Your task to perform on an android device: Go to settings Image 0: 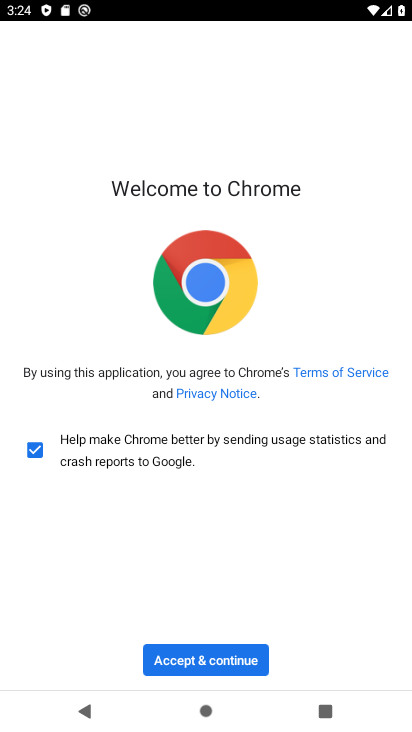
Step 0: click (242, 653)
Your task to perform on an android device: Go to settings Image 1: 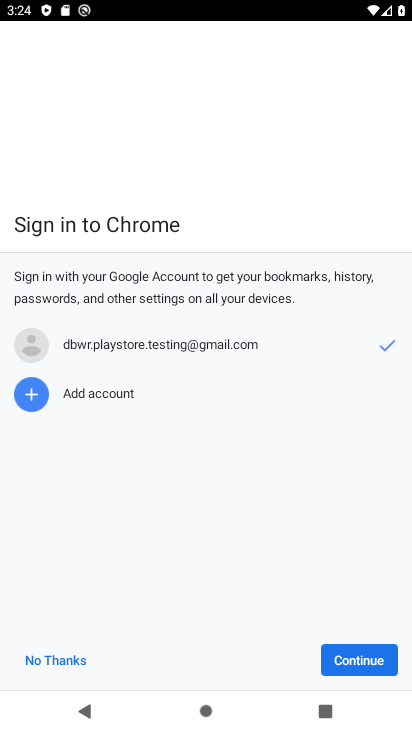
Step 1: click (351, 652)
Your task to perform on an android device: Go to settings Image 2: 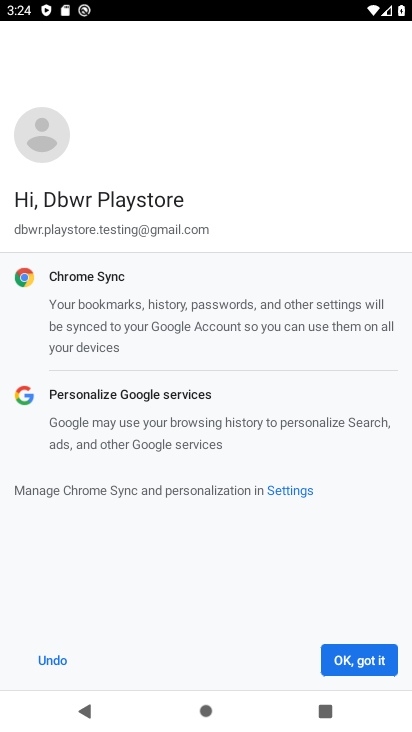
Step 2: click (350, 665)
Your task to perform on an android device: Go to settings Image 3: 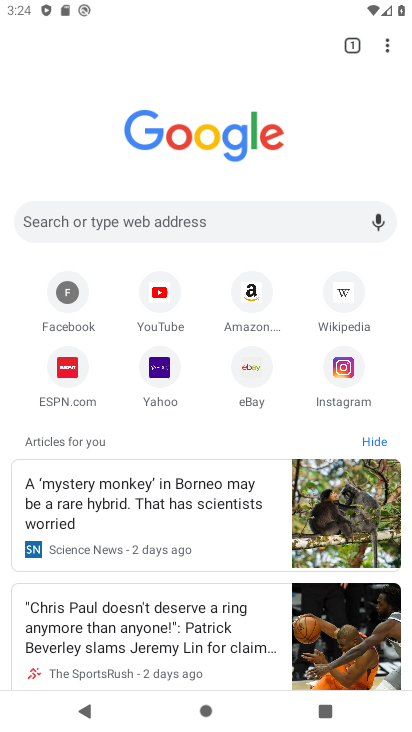
Step 3: click (383, 43)
Your task to perform on an android device: Go to settings Image 4: 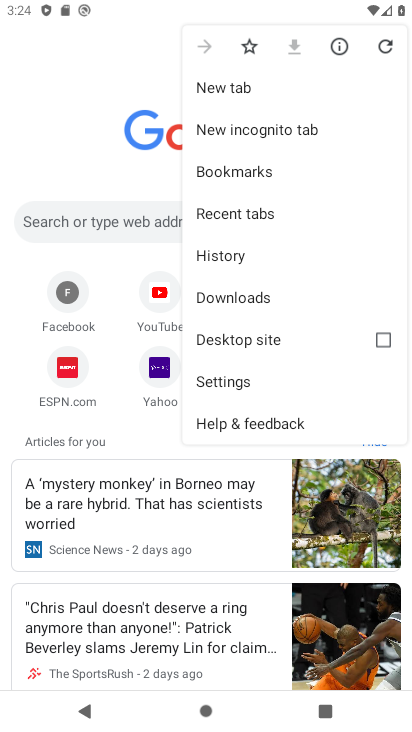
Step 4: click (232, 387)
Your task to perform on an android device: Go to settings Image 5: 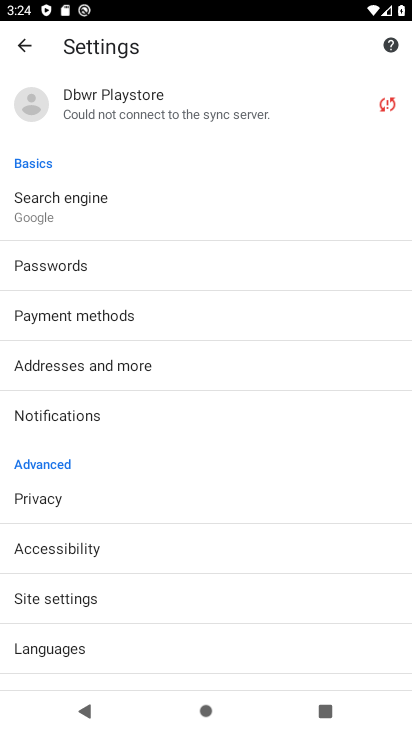
Step 5: click (155, 591)
Your task to perform on an android device: Go to settings Image 6: 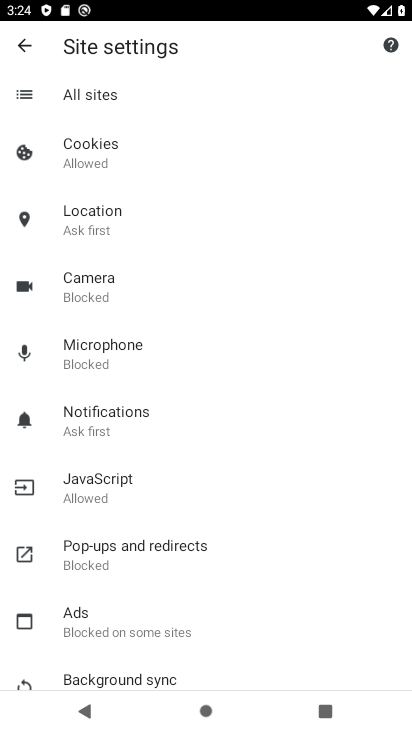
Step 6: task complete